Your task to perform on an android device: star an email in the gmail app Image 0: 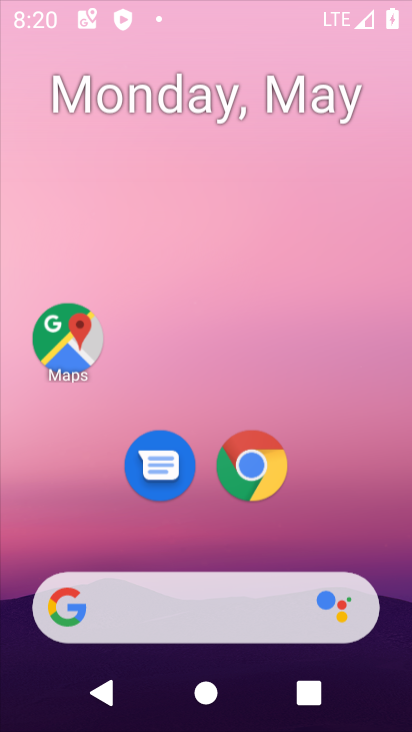
Step 0: drag from (318, 544) to (226, 19)
Your task to perform on an android device: star an email in the gmail app Image 1: 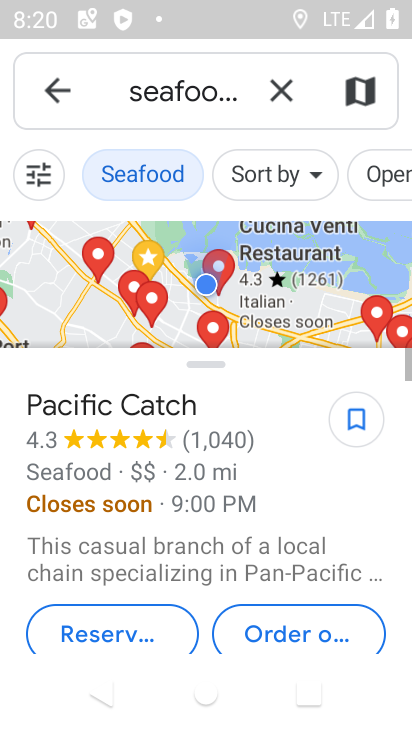
Step 1: press home button
Your task to perform on an android device: star an email in the gmail app Image 2: 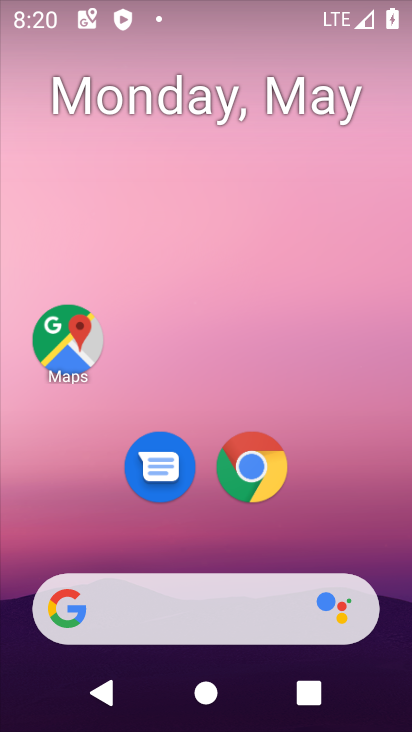
Step 2: drag from (316, 527) to (258, 89)
Your task to perform on an android device: star an email in the gmail app Image 3: 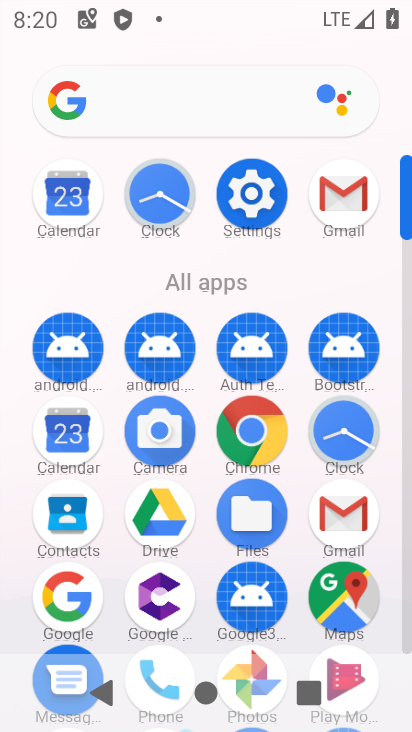
Step 3: click (340, 520)
Your task to perform on an android device: star an email in the gmail app Image 4: 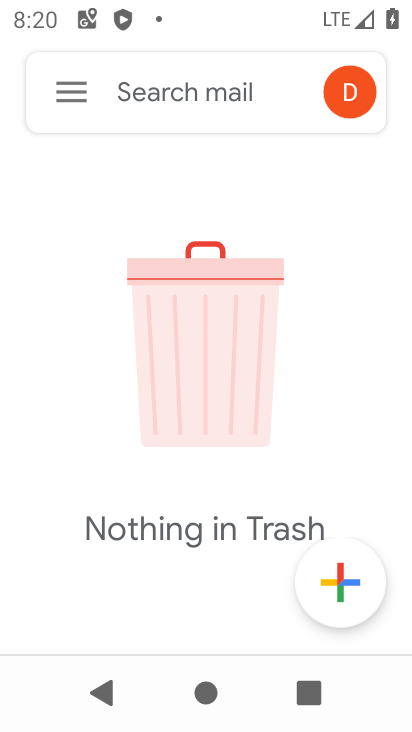
Step 4: click (74, 90)
Your task to perform on an android device: star an email in the gmail app Image 5: 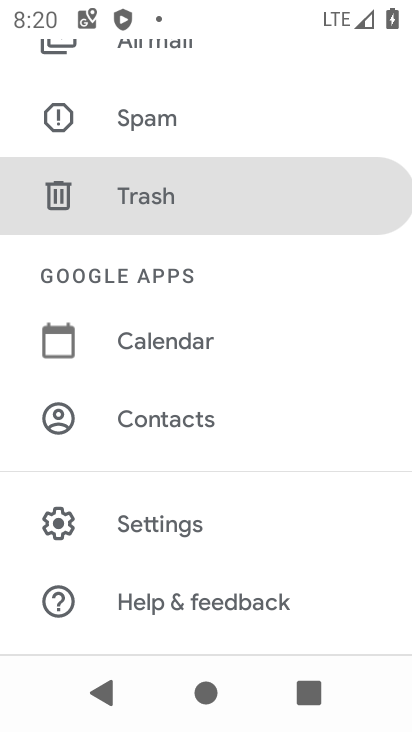
Step 5: drag from (194, 142) to (215, 650)
Your task to perform on an android device: star an email in the gmail app Image 6: 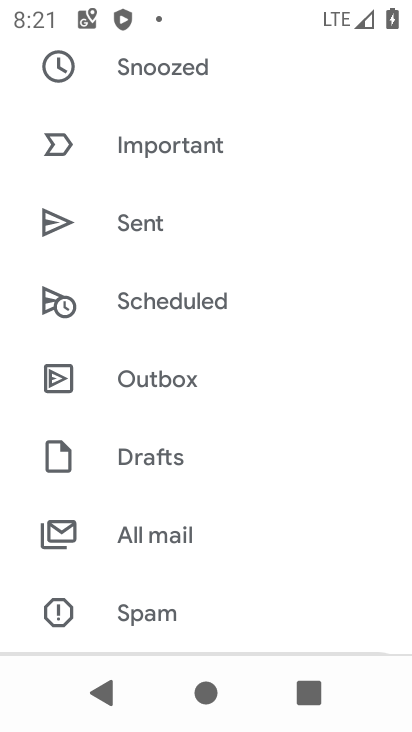
Step 6: drag from (243, 173) to (250, 635)
Your task to perform on an android device: star an email in the gmail app Image 7: 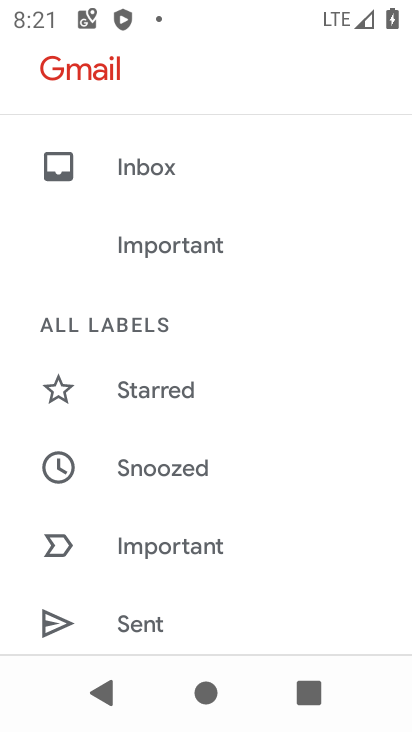
Step 7: click (188, 175)
Your task to perform on an android device: star an email in the gmail app Image 8: 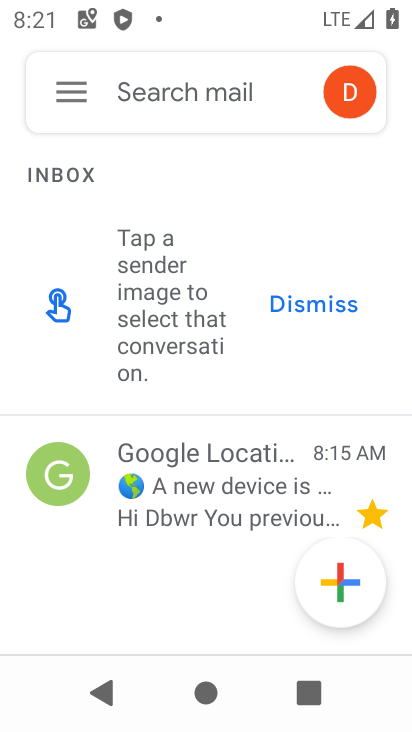
Step 8: click (347, 480)
Your task to perform on an android device: star an email in the gmail app Image 9: 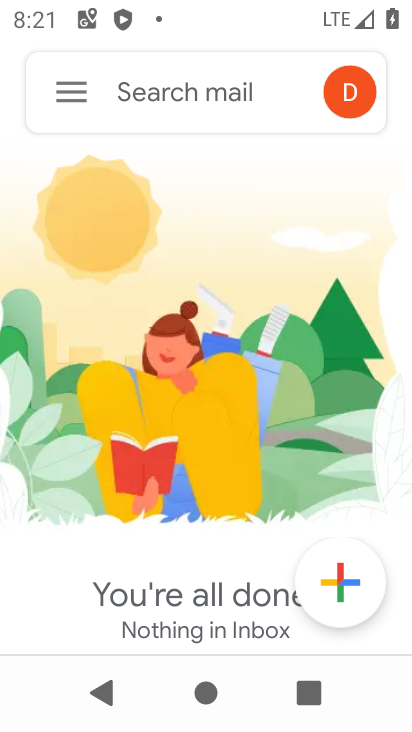
Step 9: drag from (183, 431) to (184, 121)
Your task to perform on an android device: star an email in the gmail app Image 10: 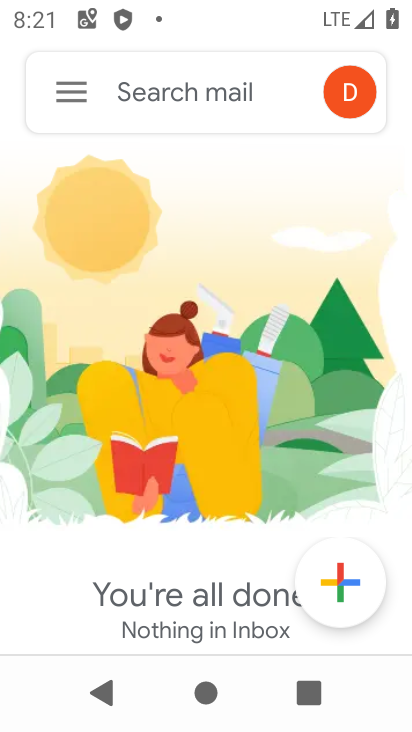
Step 10: click (65, 84)
Your task to perform on an android device: star an email in the gmail app Image 11: 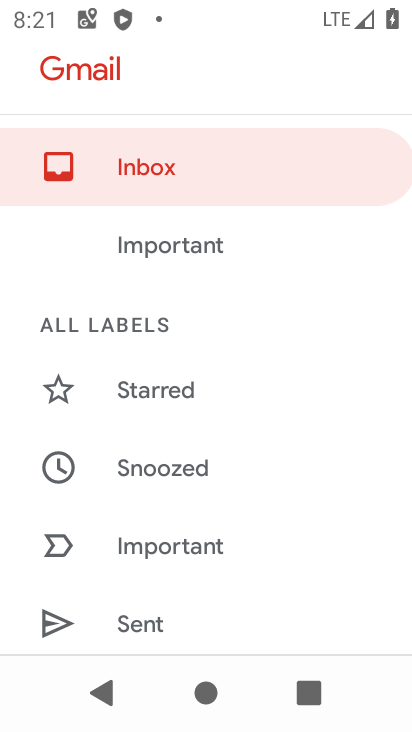
Step 11: click (178, 395)
Your task to perform on an android device: star an email in the gmail app Image 12: 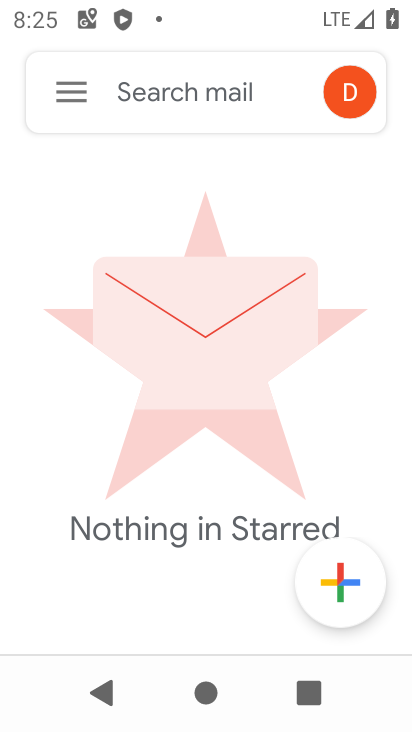
Step 12: task complete